Your task to perform on an android device: Go to eBay Image 0: 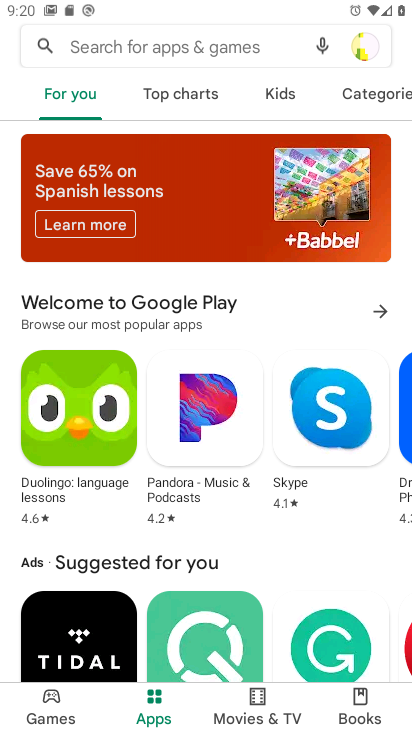
Step 0: press home button
Your task to perform on an android device: Go to eBay Image 1: 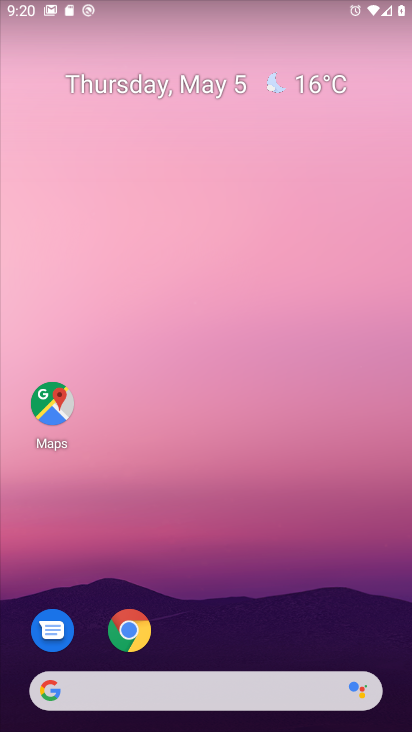
Step 1: drag from (240, 473) to (316, 37)
Your task to perform on an android device: Go to eBay Image 2: 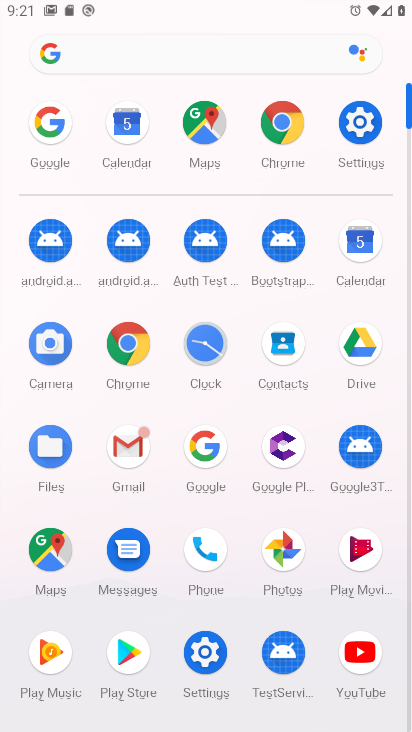
Step 2: click (274, 126)
Your task to perform on an android device: Go to eBay Image 3: 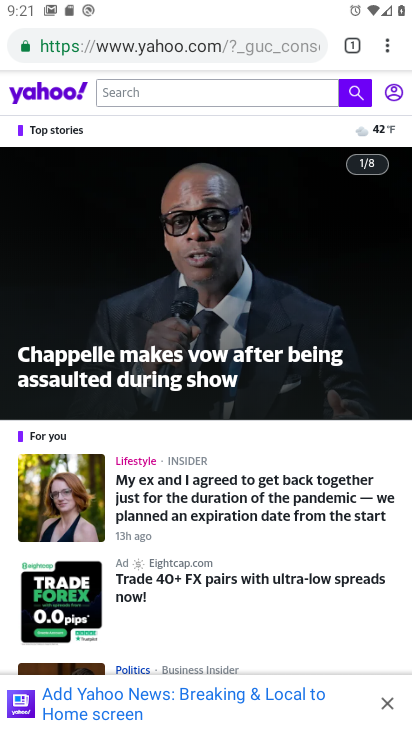
Step 3: press back button
Your task to perform on an android device: Go to eBay Image 4: 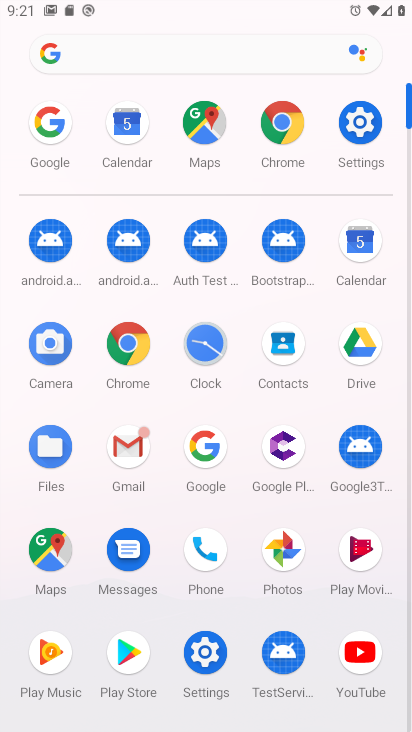
Step 4: click (295, 137)
Your task to perform on an android device: Go to eBay Image 5: 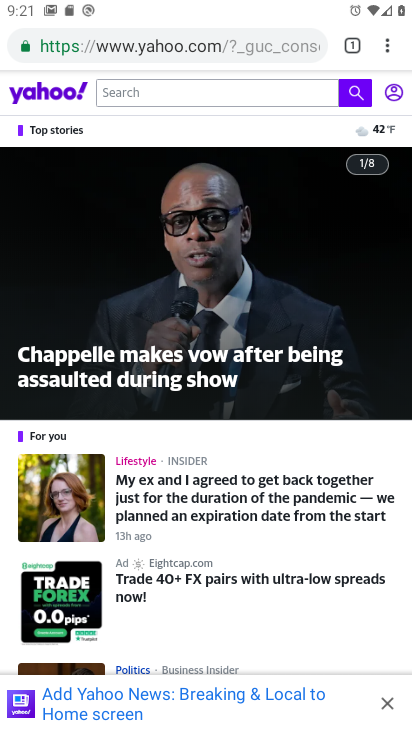
Step 5: drag from (387, 30) to (232, 99)
Your task to perform on an android device: Go to eBay Image 6: 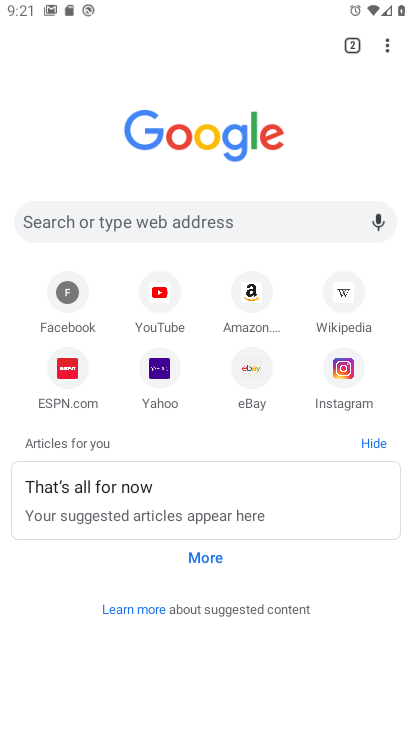
Step 6: click (257, 365)
Your task to perform on an android device: Go to eBay Image 7: 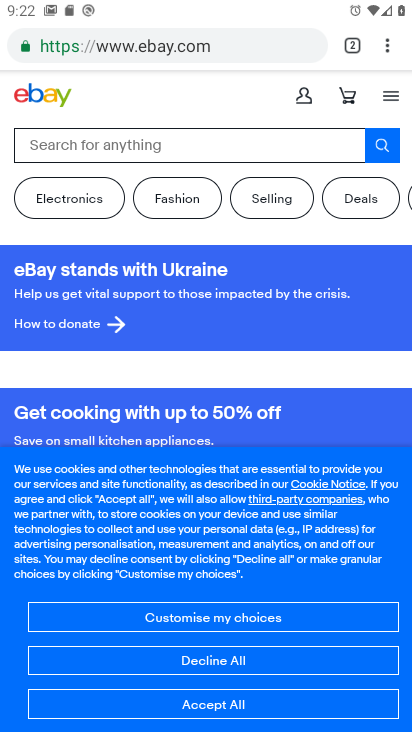
Step 7: task complete